Your task to perform on an android device: Is it going to rain this weekend? Image 0: 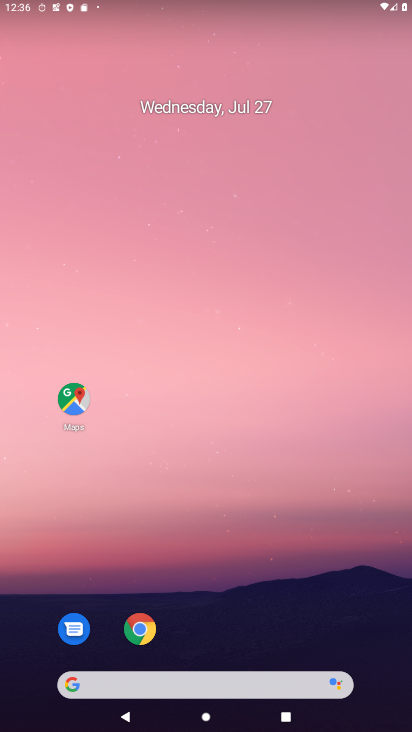
Step 0: drag from (330, 633) to (128, 18)
Your task to perform on an android device: Is it going to rain this weekend? Image 1: 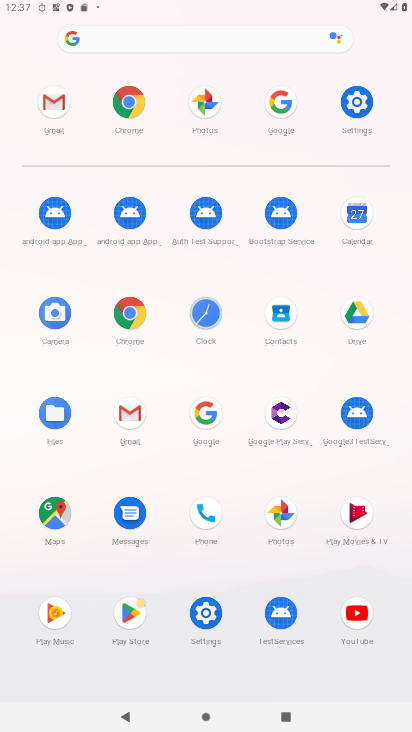
Step 1: click (219, 416)
Your task to perform on an android device: Is it going to rain this weekend? Image 2: 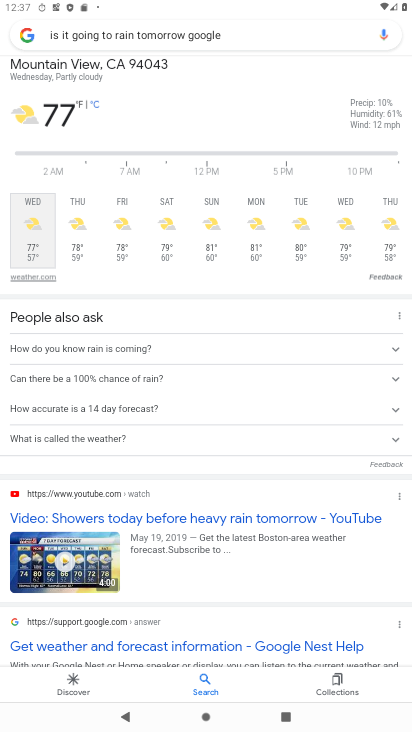
Step 2: press back button
Your task to perform on an android device: Is it going to rain this weekend? Image 3: 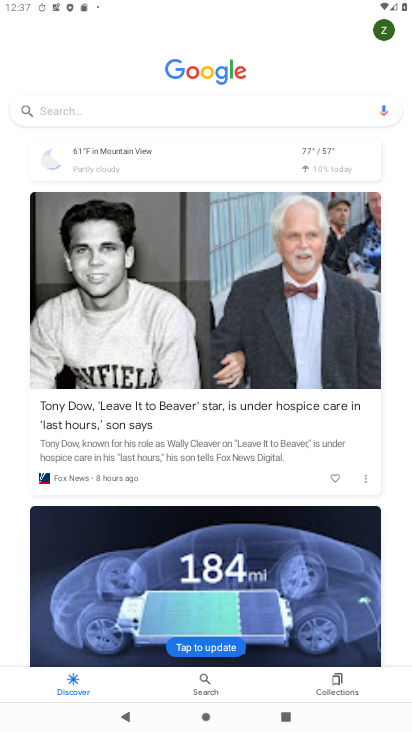
Step 3: click (92, 107)
Your task to perform on an android device: Is it going to rain this weekend? Image 4: 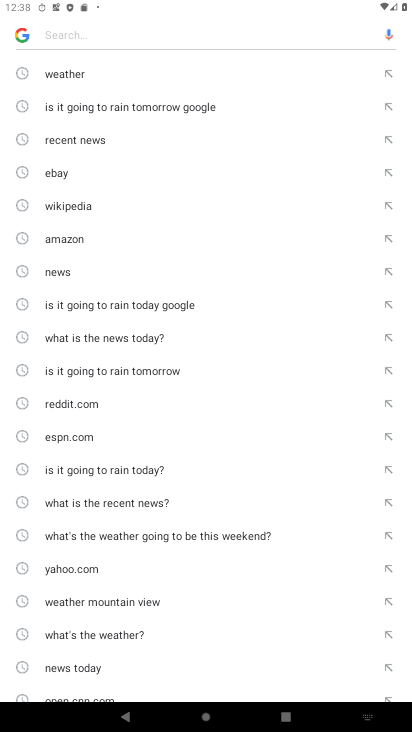
Step 4: drag from (149, 642) to (149, 316)
Your task to perform on an android device: Is it going to rain this weekend? Image 5: 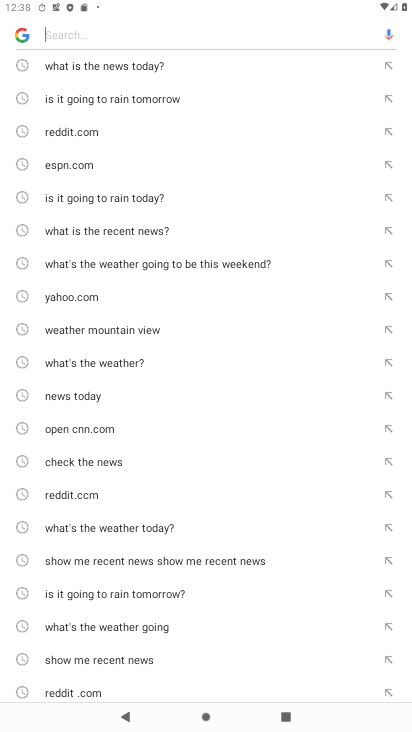
Step 5: drag from (162, 622) to (179, 275)
Your task to perform on an android device: Is it going to rain this weekend? Image 6: 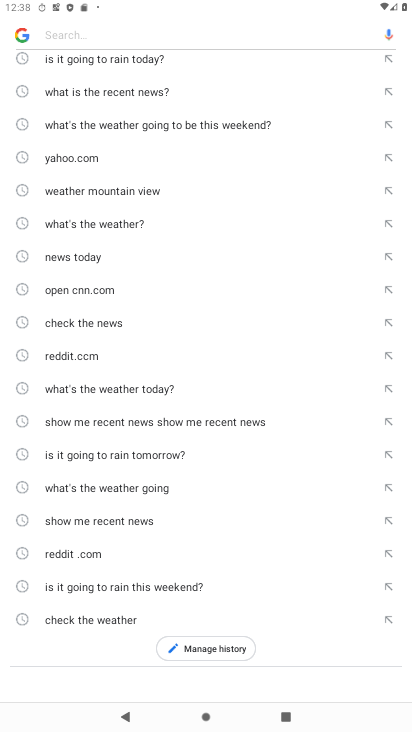
Step 6: click (144, 589)
Your task to perform on an android device: Is it going to rain this weekend? Image 7: 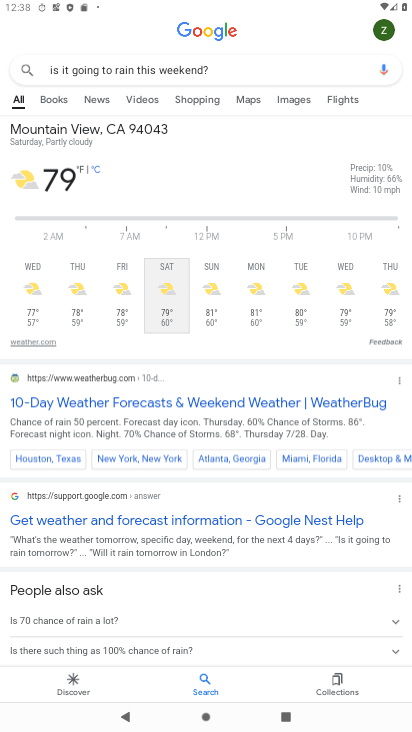
Step 7: task complete